Your task to perform on an android device: Go to privacy settings Image 0: 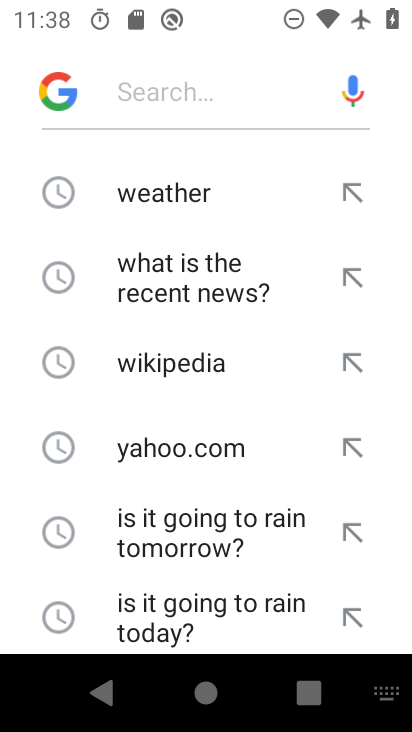
Step 0: press home button
Your task to perform on an android device: Go to privacy settings Image 1: 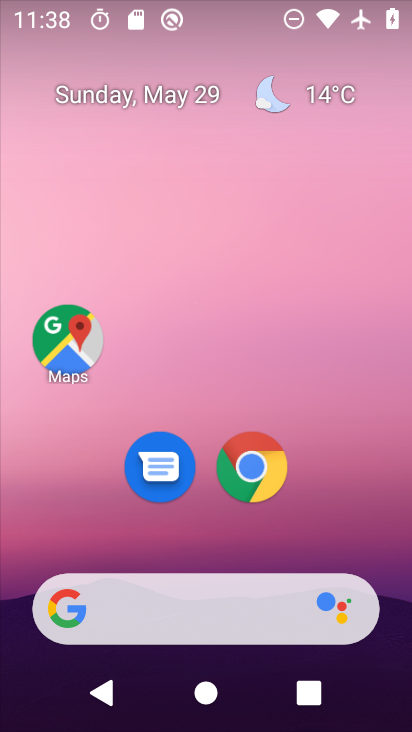
Step 1: drag from (217, 541) to (194, 137)
Your task to perform on an android device: Go to privacy settings Image 2: 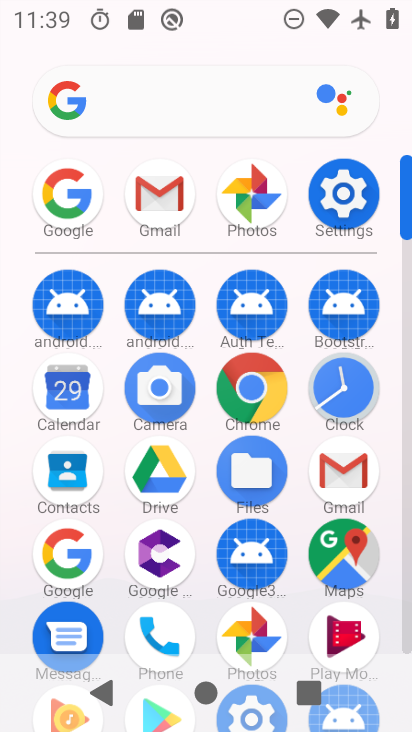
Step 2: click (333, 197)
Your task to perform on an android device: Go to privacy settings Image 3: 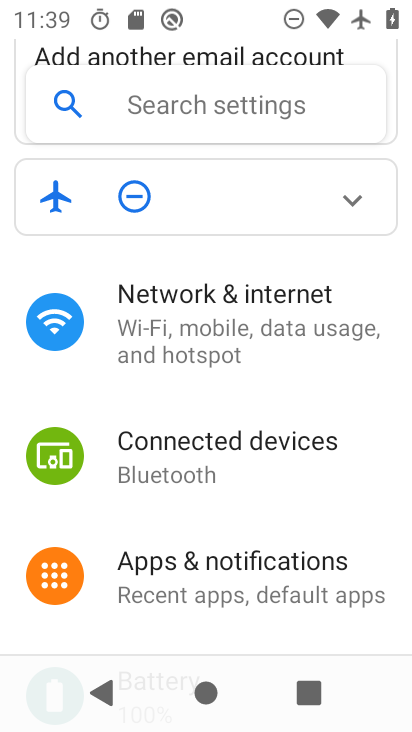
Step 3: drag from (224, 566) to (214, 208)
Your task to perform on an android device: Go to privacy settings Image 4: 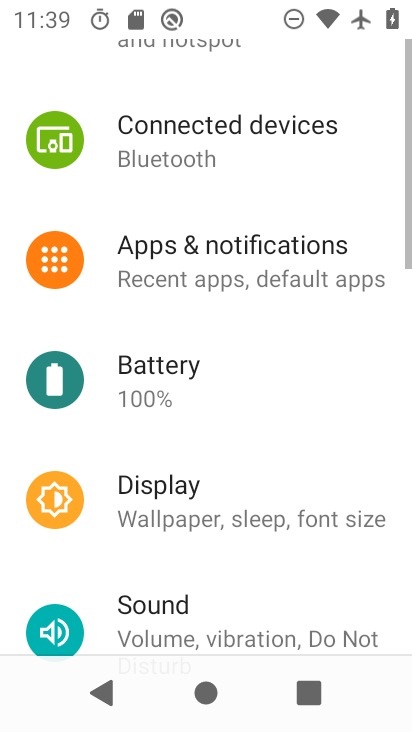
Step 4: drag from (219, 516) to (208, 220)
Your task to perform on an android device: Go to privacy settings Image 5: 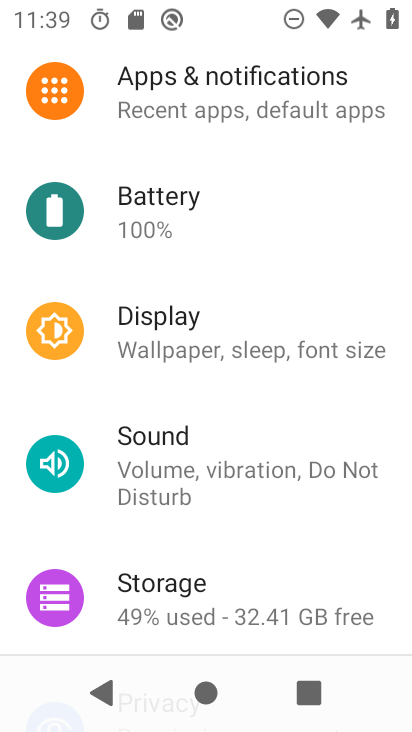
Step 5: drag from (211, 517) to (214, 222)
Your task to perform on an android device: Go to privacy settings Image 6: 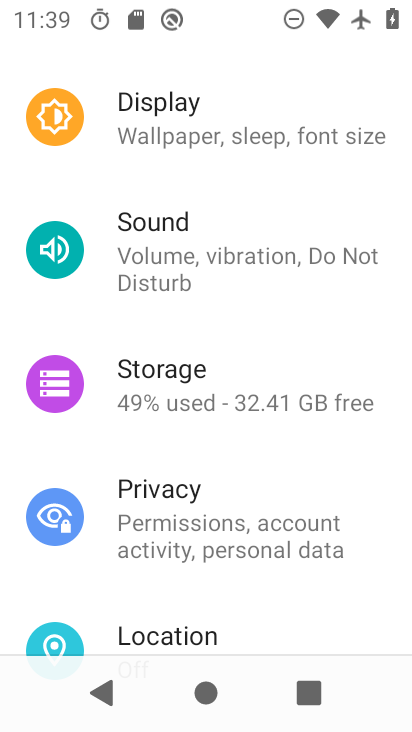
Step 6: click (207, 523)
Your task to perform on an android device: Go to privacy settings Image 7: 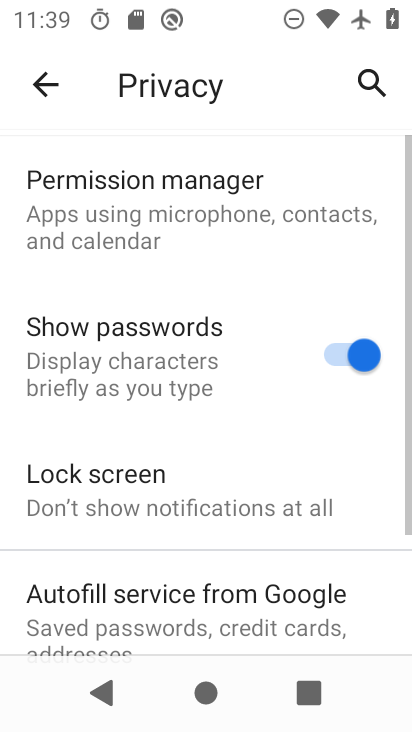
Step 7: task complete